Your task to perform on an android device: Open settings on Google Maps Image 0: 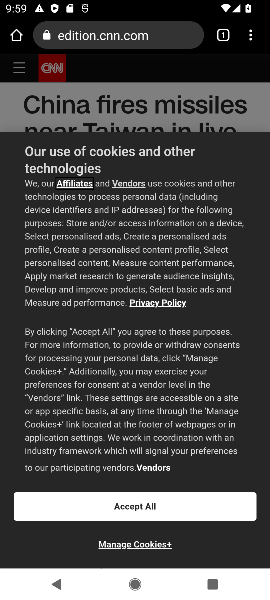
Step 0: press home button
Your task to perform on an android device: Open settings on Google Maps Image 1: 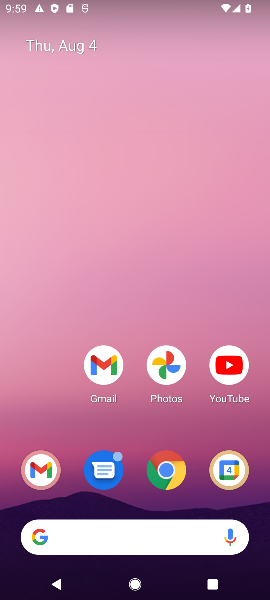
Step 1: drag from (130, 422) to (156, 9)
Your task to perform on an android device: Open settings on Google Maps Image 2: 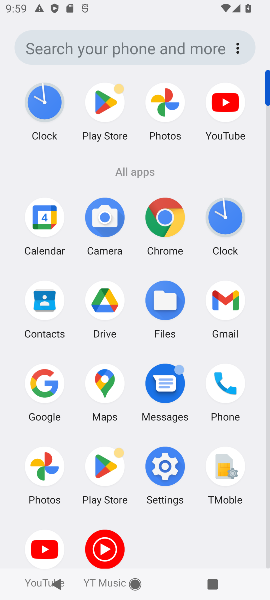
Step 2: click (101, 380)
Your task to perform on an android device: Open settings on Google Maps Image 3: 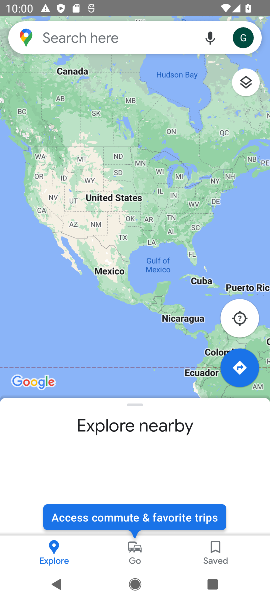
Step 3: click (246, 33)
Your task to perform on an android device: Open settings on Google Maps Image 4: 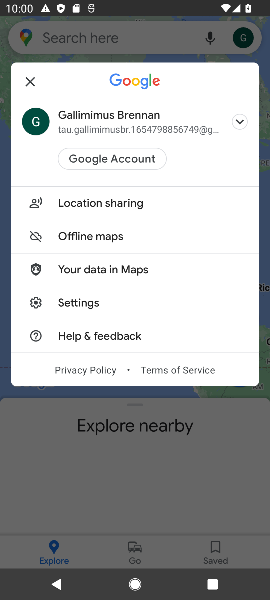
Step 4: click (94, 298)
Your task to perform on an android device: Open settings on Google Maps Image 5: 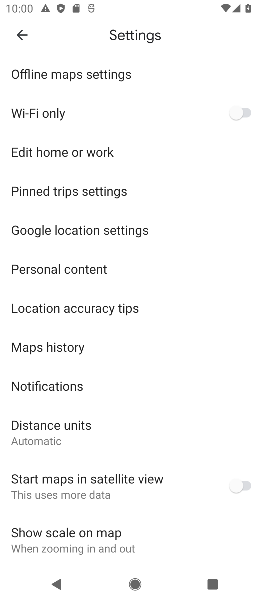
Step 5: task complete